Your task to perform on an android device: Open settings on Google Maps Image 0: 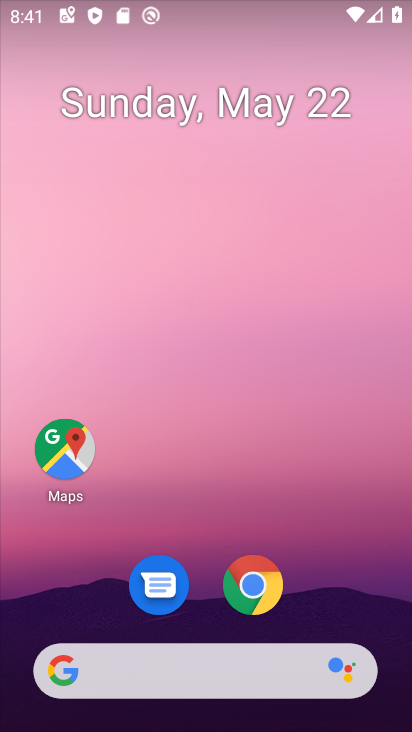
Step 0: click (53, 443)
Your task to perform on an android device: Open settings on Google Maps Image 1: 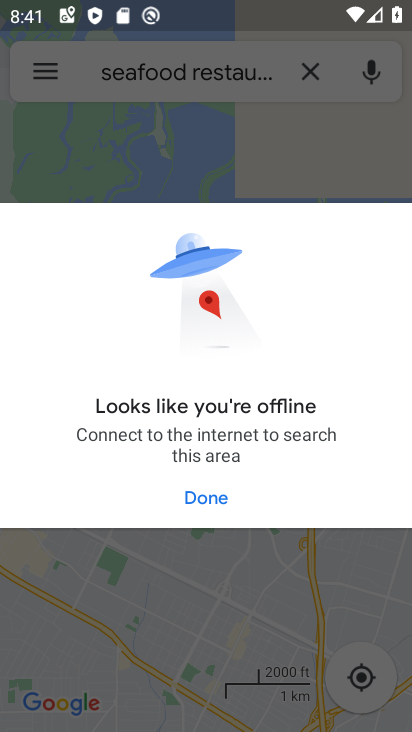
Step 1: click (215, 490)
Your task to perform on an android device: Open settings on Google Maps Image 2: 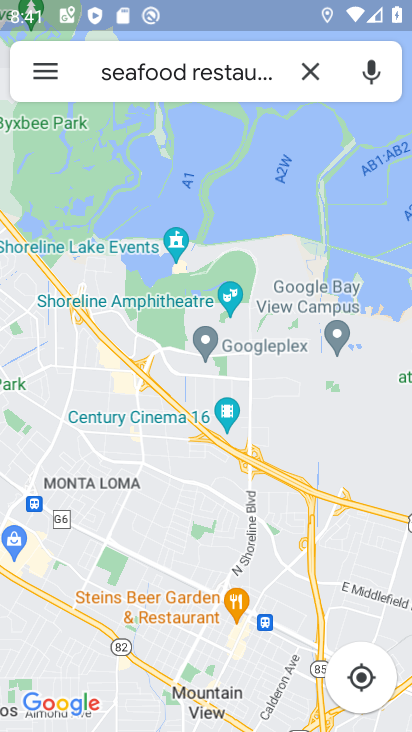
Step 2: click (215, 488)
Your task to perform on an android device: Open settings on Google Maps Image 3: 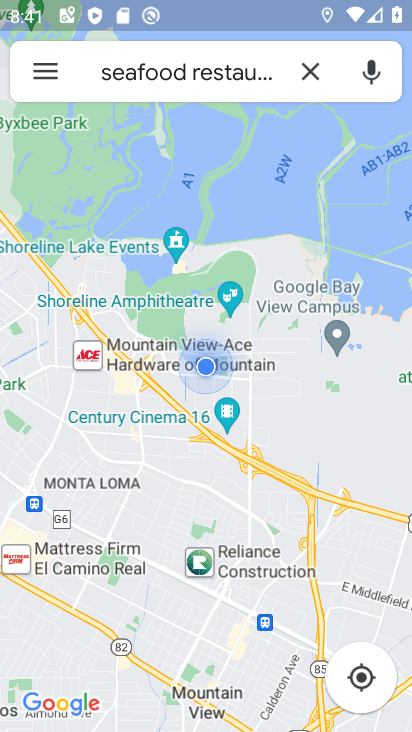
Step 3: click (43, 74)
Your task to perform on an android device: Open settings on Google Maps Image 4: 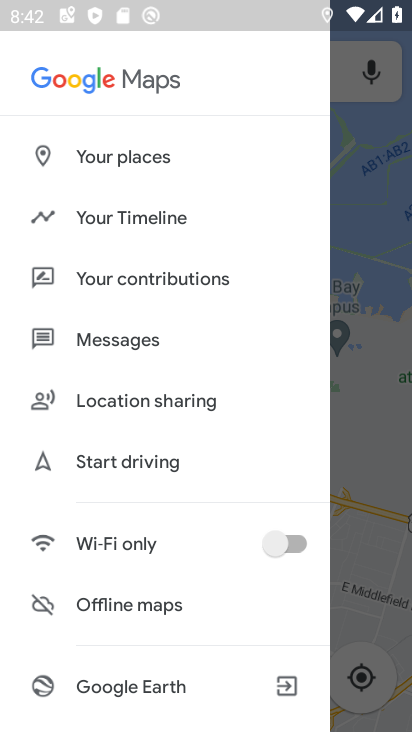
Step 4: drag from (126, 625) to (166, 24)
Your task to perform on an android device: Open settings on Google Maps Image 5: 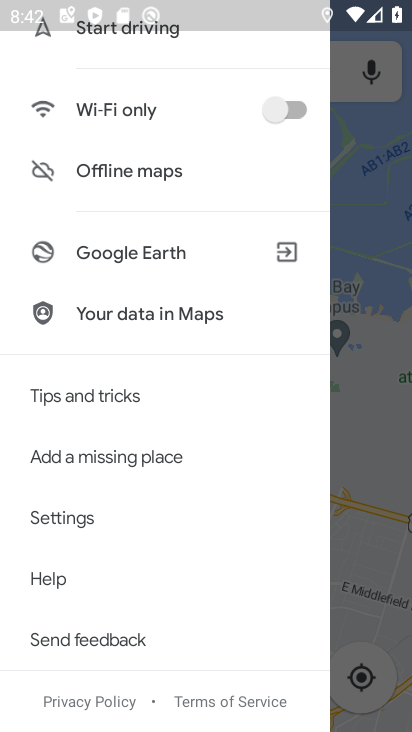
Step 5: click (104, 518)
Your task to perform on an android device: Open settings on Google Maps Image 6: 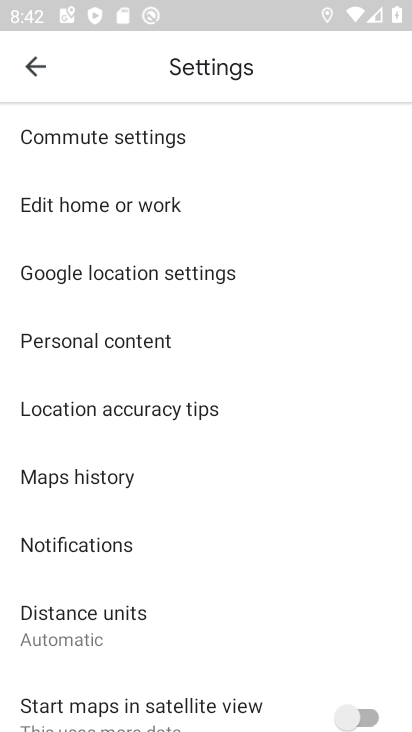
Step 6: task complete